Your task to perform on an android device: What's the weather today? Image 0: 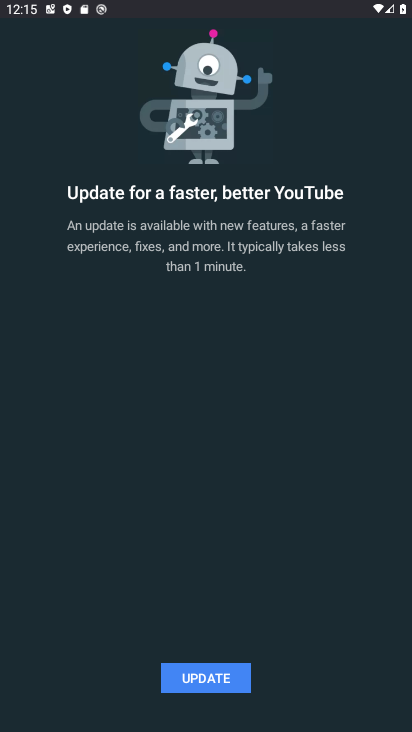
Step 0: press home button
Your task to perform on an android device: What's the weather today? Image 1: 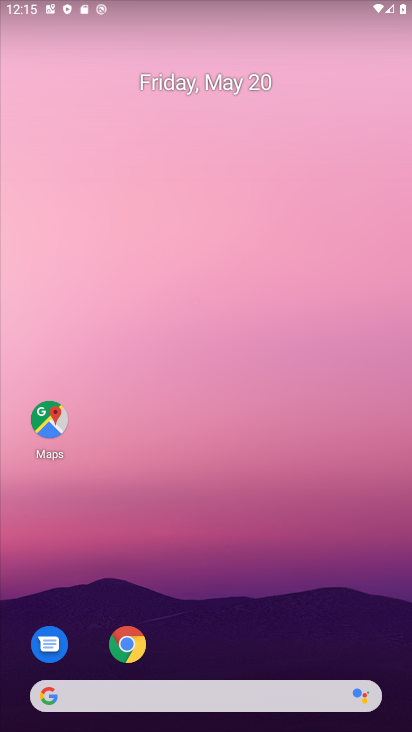
Step 1: click (107, 698)
Your task to perform on an android device: What's the weather today? Image 2: 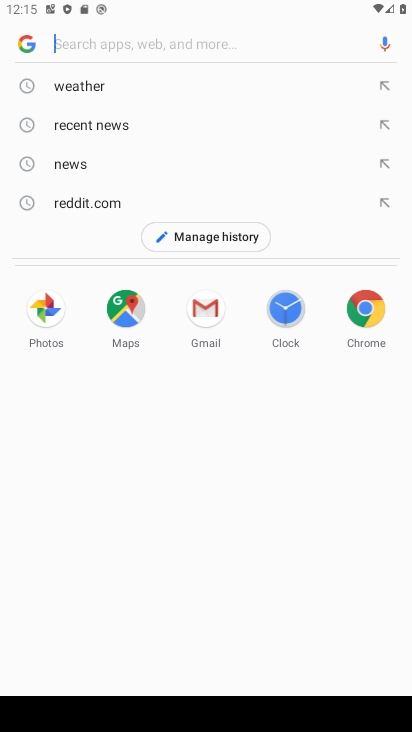
Step 2: click (84, 86)
Your task to perform on an android device: What's the weather today? Image 3: 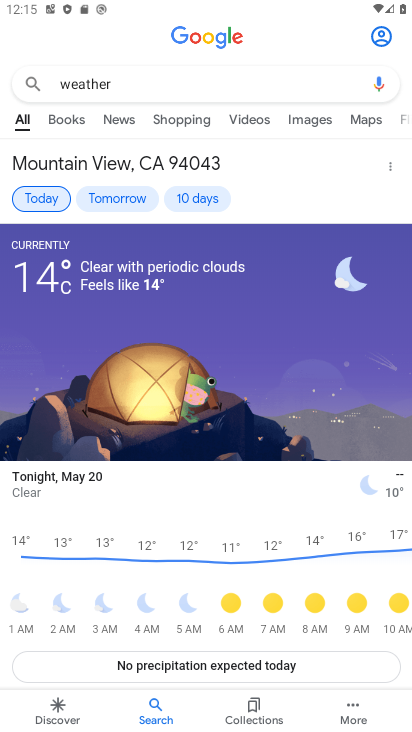
Step 3: task complete